Your task to perform on an android device: set the timer Image 0: 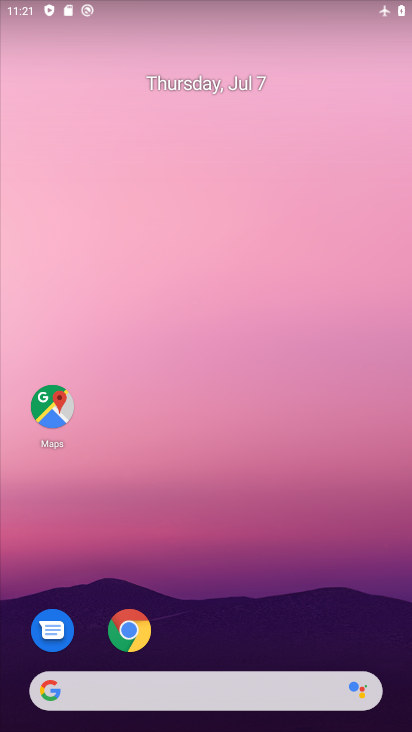
Step 0: drag from (393, 657) to (143, 13)
Your task to perform on an android device: set the timer Image 1: 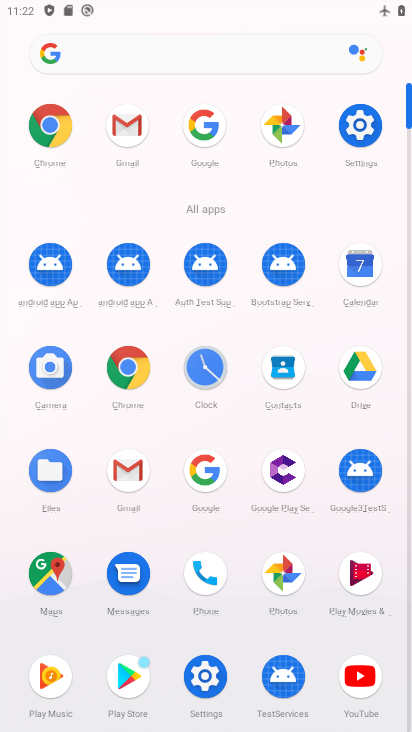
Step 1: click (209, 378)
Your task to perform on an android device: set the timer Image 2: 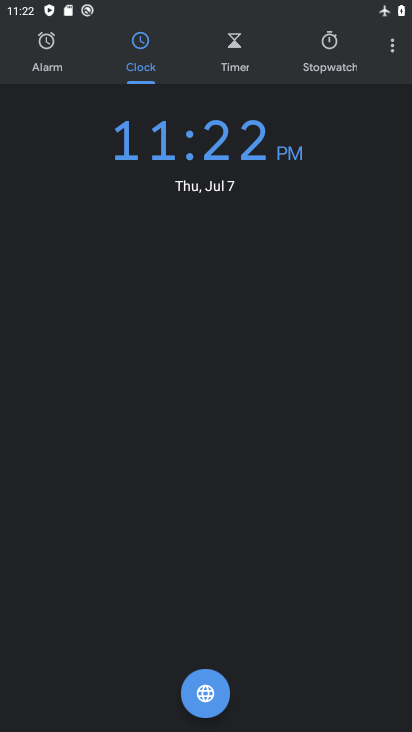
Step 2: click (227, 52)
Your task to perform on an android device: set the timer Image 3: 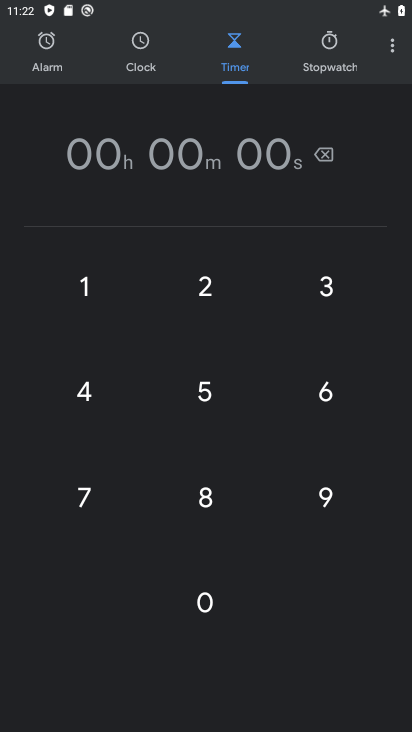
Step 3: click (257, 145)
Your task to perform on an android device: set the timer Image 4: 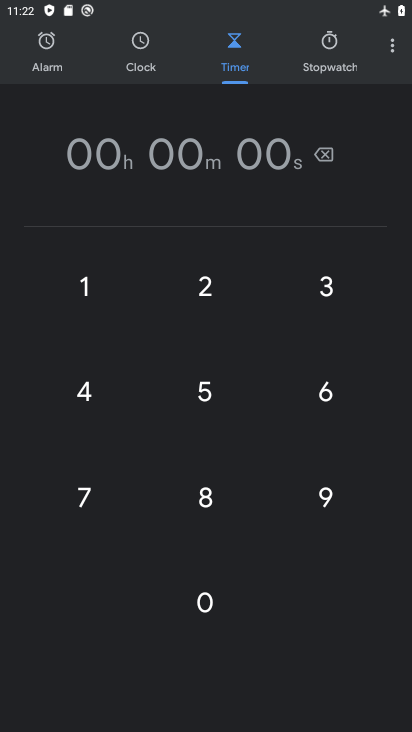
Step 4: click (324, 287)
Your task to perform on an android device: set the timer Image 5: 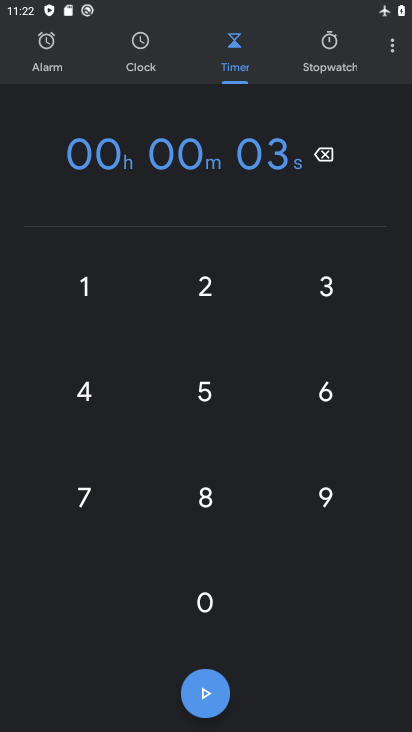
Step 5: click (100, 157)
Your task to perform on an android device: set the timer Image 6: 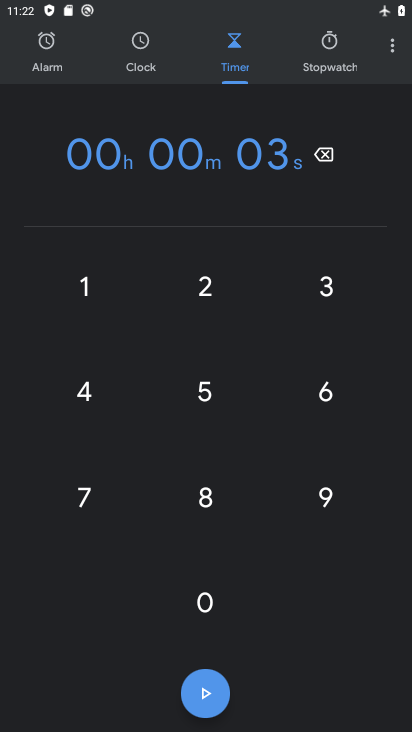
Step 6: click (217, 297)
Your task to perform on an android device: set the timer Image 7: 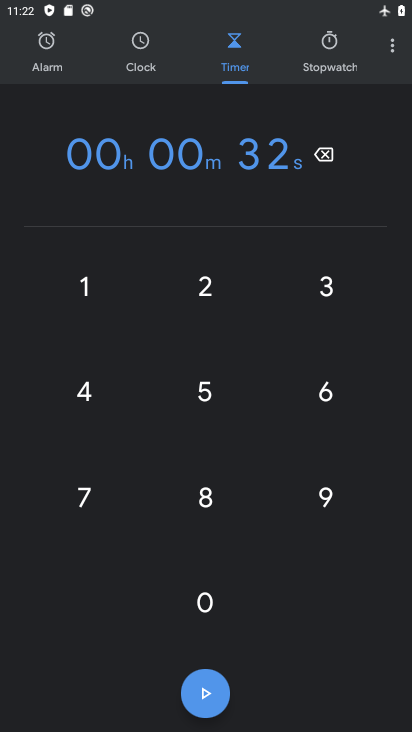
Step 7: click (77, 151)
Your task to perform on an android device: set the timer Image 8: 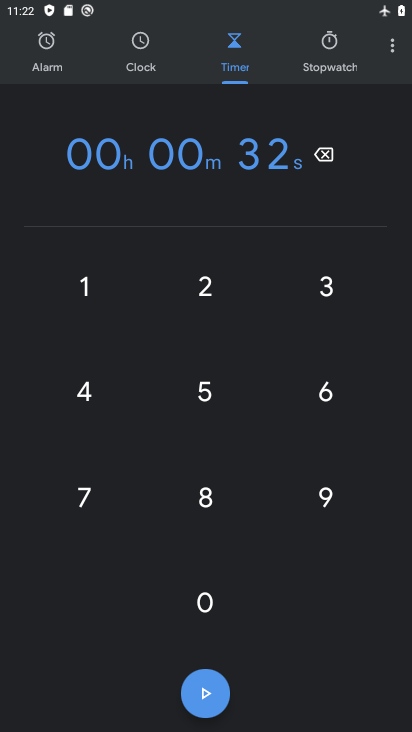
Step 8: click (91, 278)
Your task to perform on an android device: set the timer Image 9: 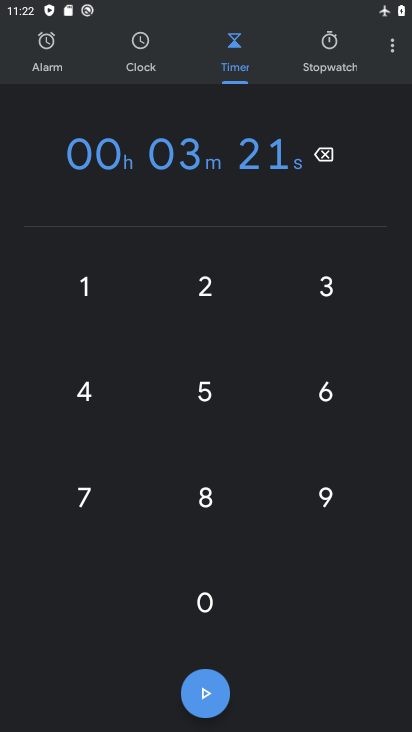
Step 9: click (85, 161)
Your task to perform on an android device: set the timer Image 10: 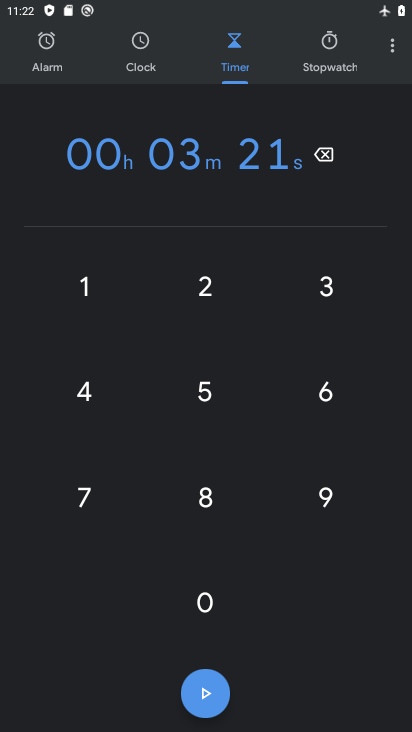
Step 10: click (203, 290)
Your task to perform on an android device: set the timer Image 11: 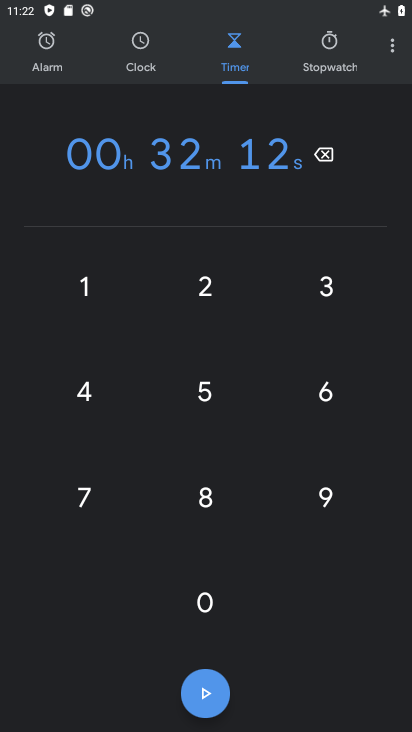
Step 11: click (328, 302)
Your task to perform on an android device: set the timer Image 12: 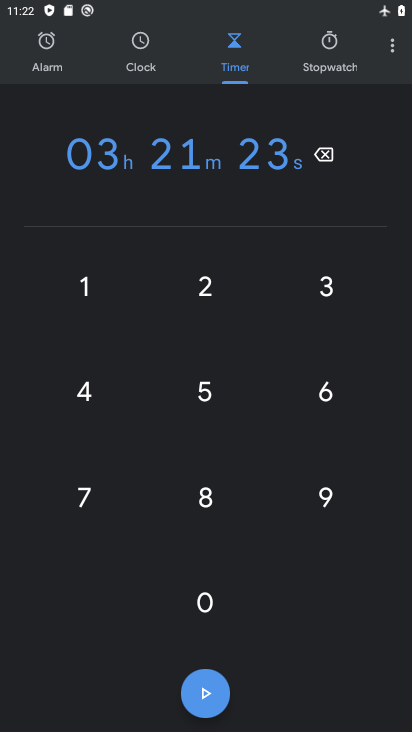
Step 12: task complete